Your task to perform on an android device: turn off notifications in google photos Image 0: 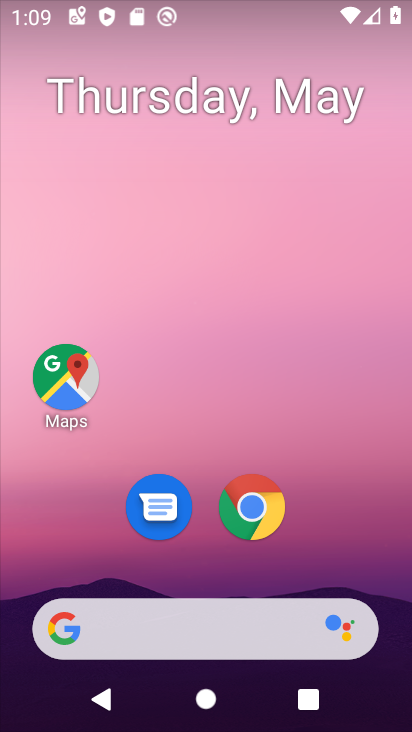
Step 0: drag from (182, 635) to (149, 17)
Your task to perform on an android device: turn off notifications in google photos Image 1: 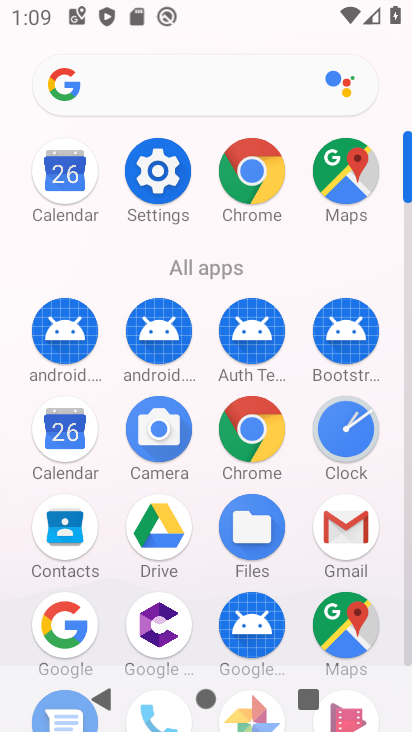
Step 1: click (202, 576)
Your task to perform on an android device: turn off notifications in google photos Image 2: 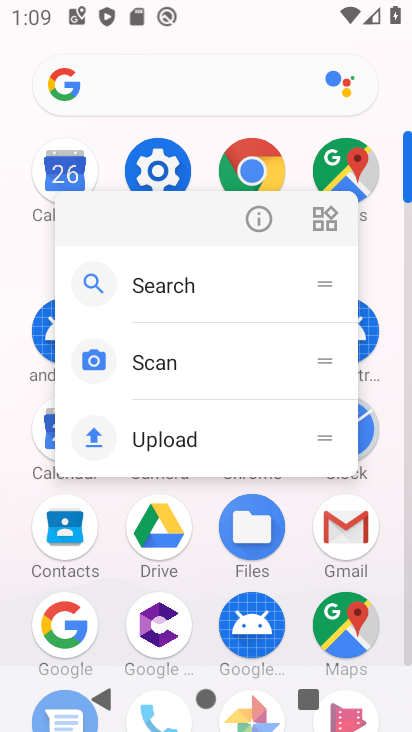
Step 2: click (162, 528)
Your task to perform on an android device: turn off notifications in google photos Image 3: 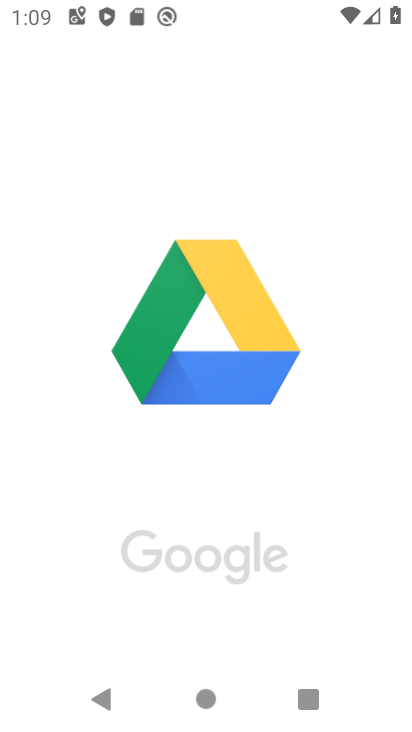
Step 3: task complete